Your task to perform on an android device: Show the shopping cart on newegg. Search for "apple airpods pro" on newegg, select the first entry, and add it to the cart. Image 0: 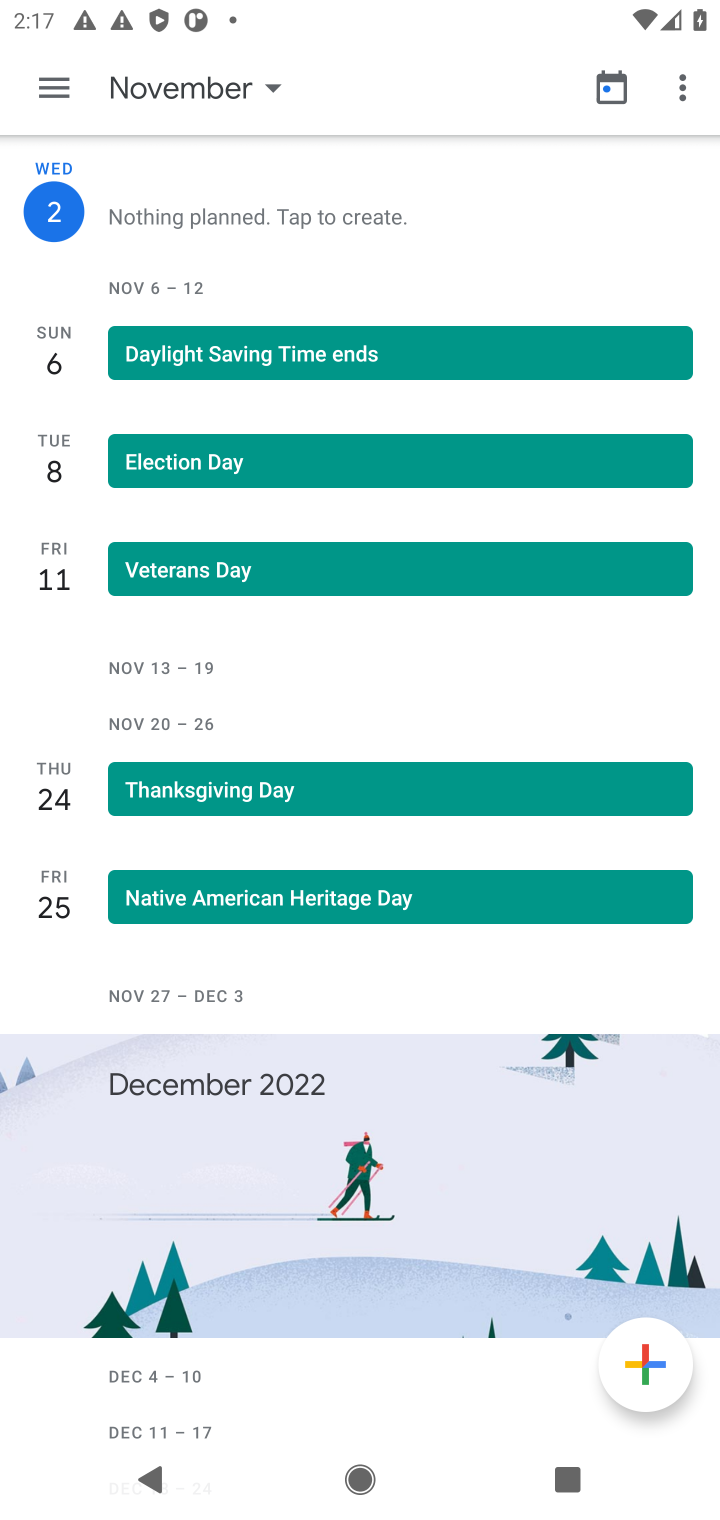
Step 0: press home button
Your task to perform on an android device: Show the shopping cart on newegg. Search for "apple airpods pro" on newegg, select the first entry, and add it to the cart. Image 1: 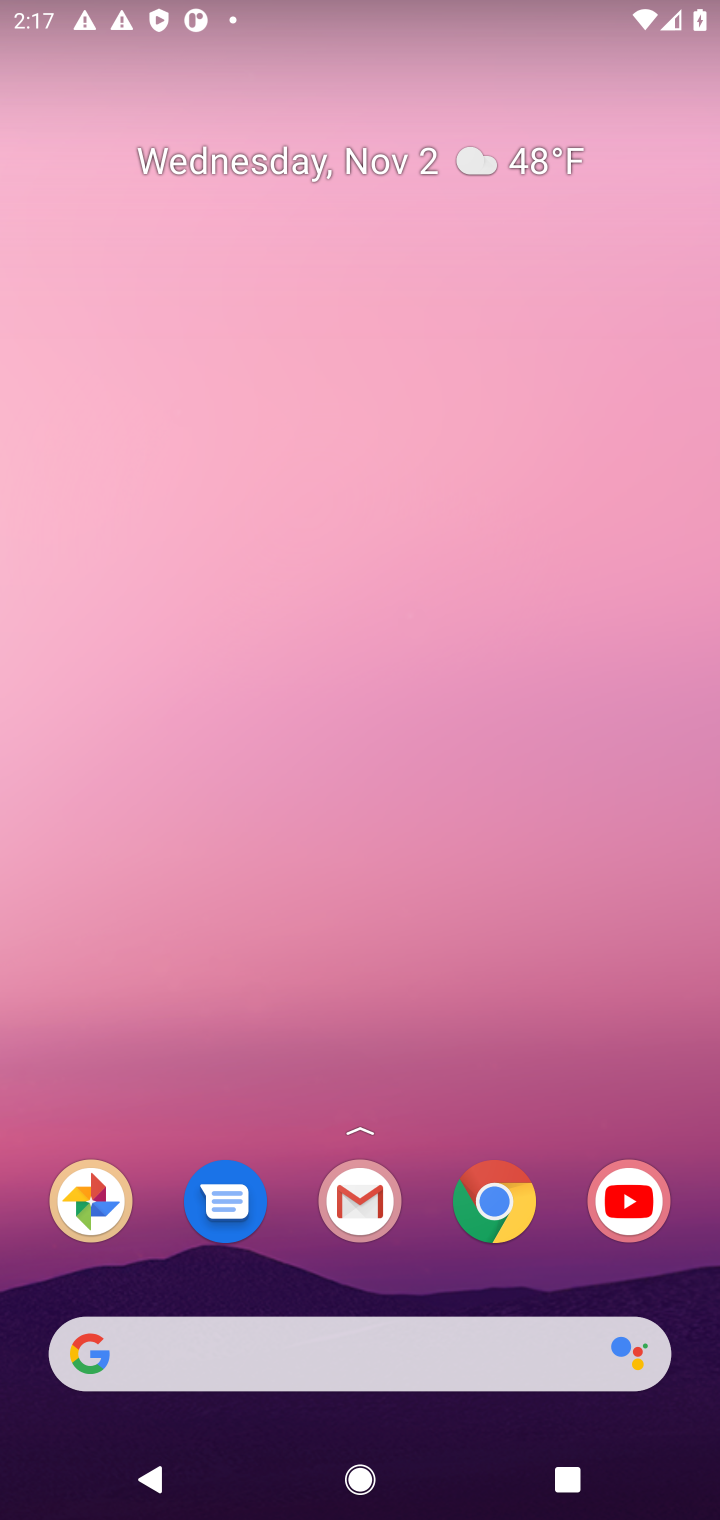
Step 1: click (511, 1216)
Your task to perform on an android device: Show the shopping cart on newegg. Search for "apple airpods pro" on newegg, select the first entry, and add it to the cart. Image 2: 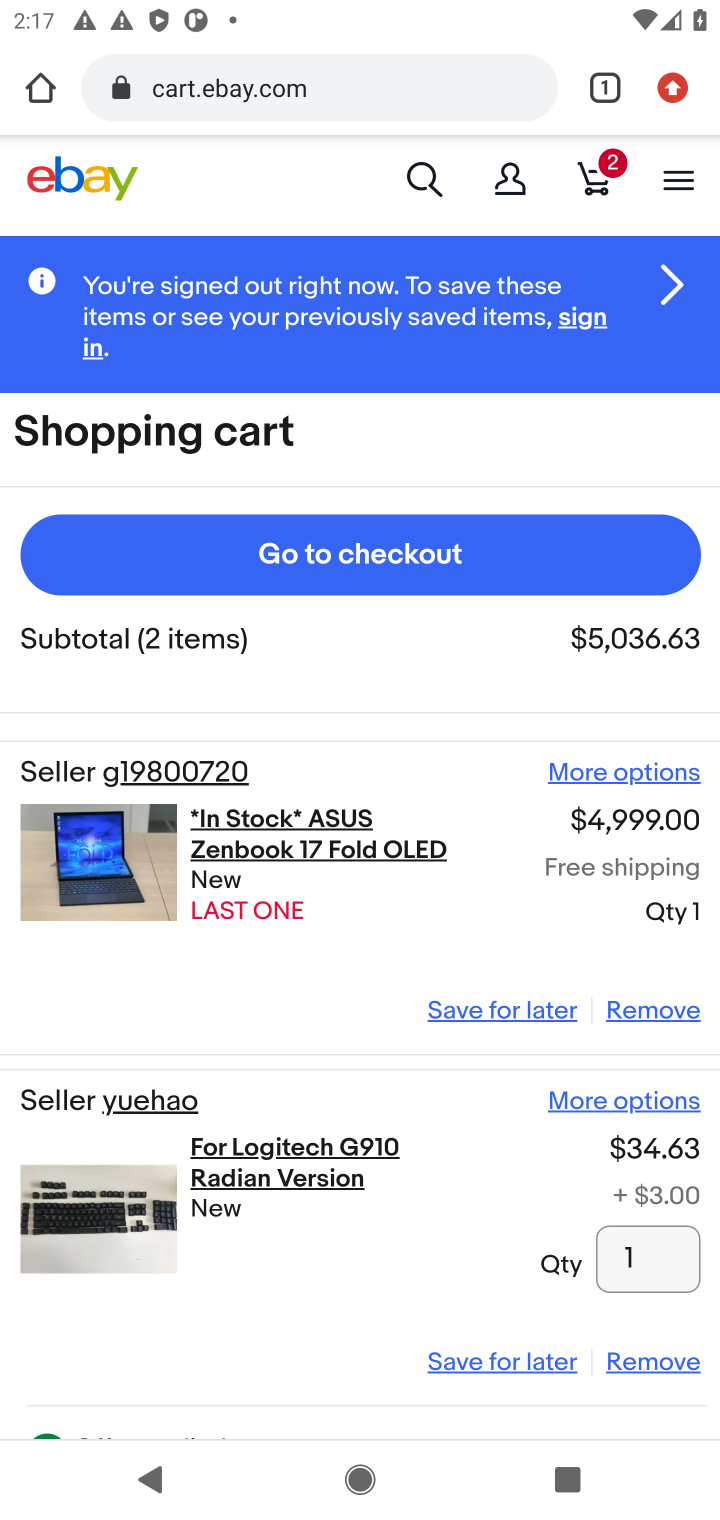
Step 2: click (496, 100)
Your task to perform on an android device: Show the shopping cart on newegg. Search for "apple airpods pro" on newegg, select the first entry, and add it to the cart. Image 3: 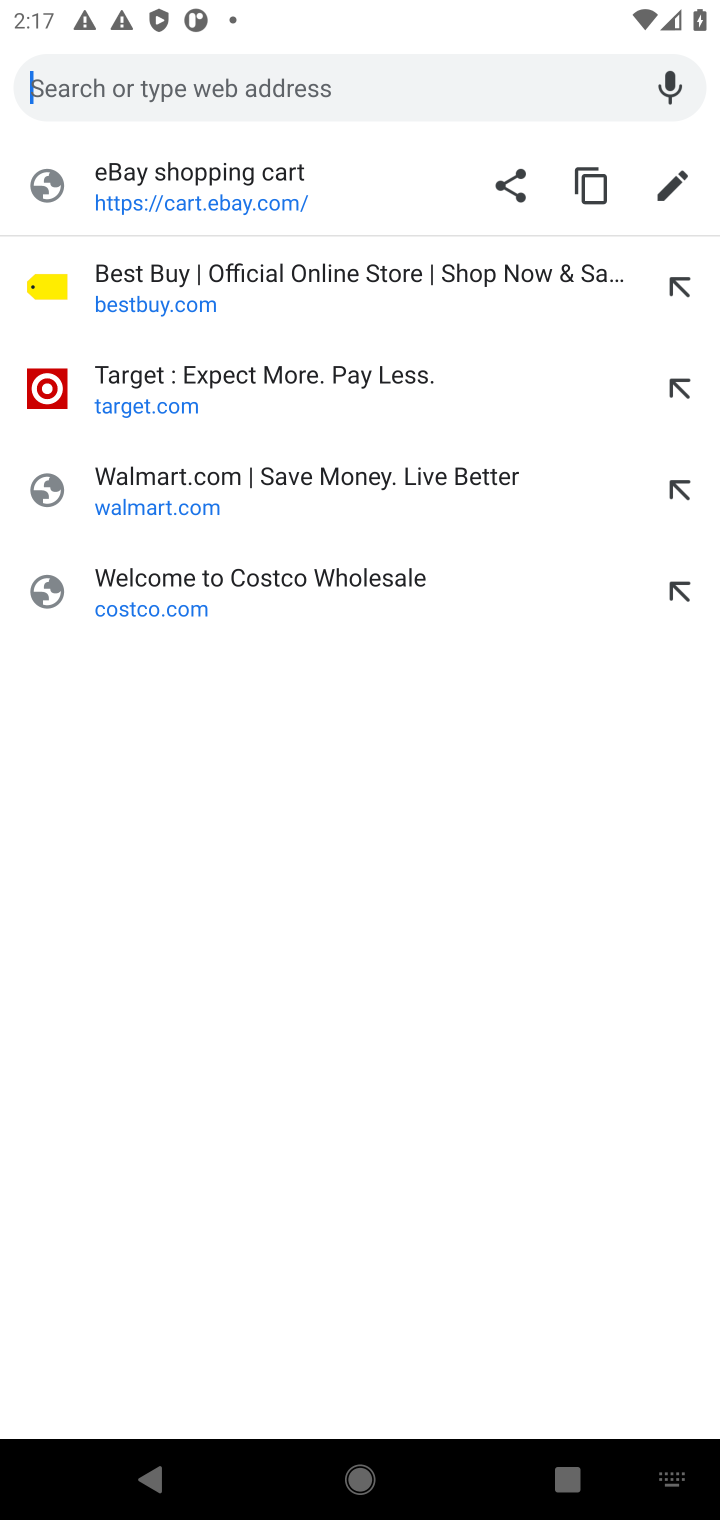
Step 3: type "newegg"
Your task to perform on an android device: Show the shopping cart on newegg. Search for "apple airpods pro" on newegg, select the first entry, and add it to the cart. Image 4: 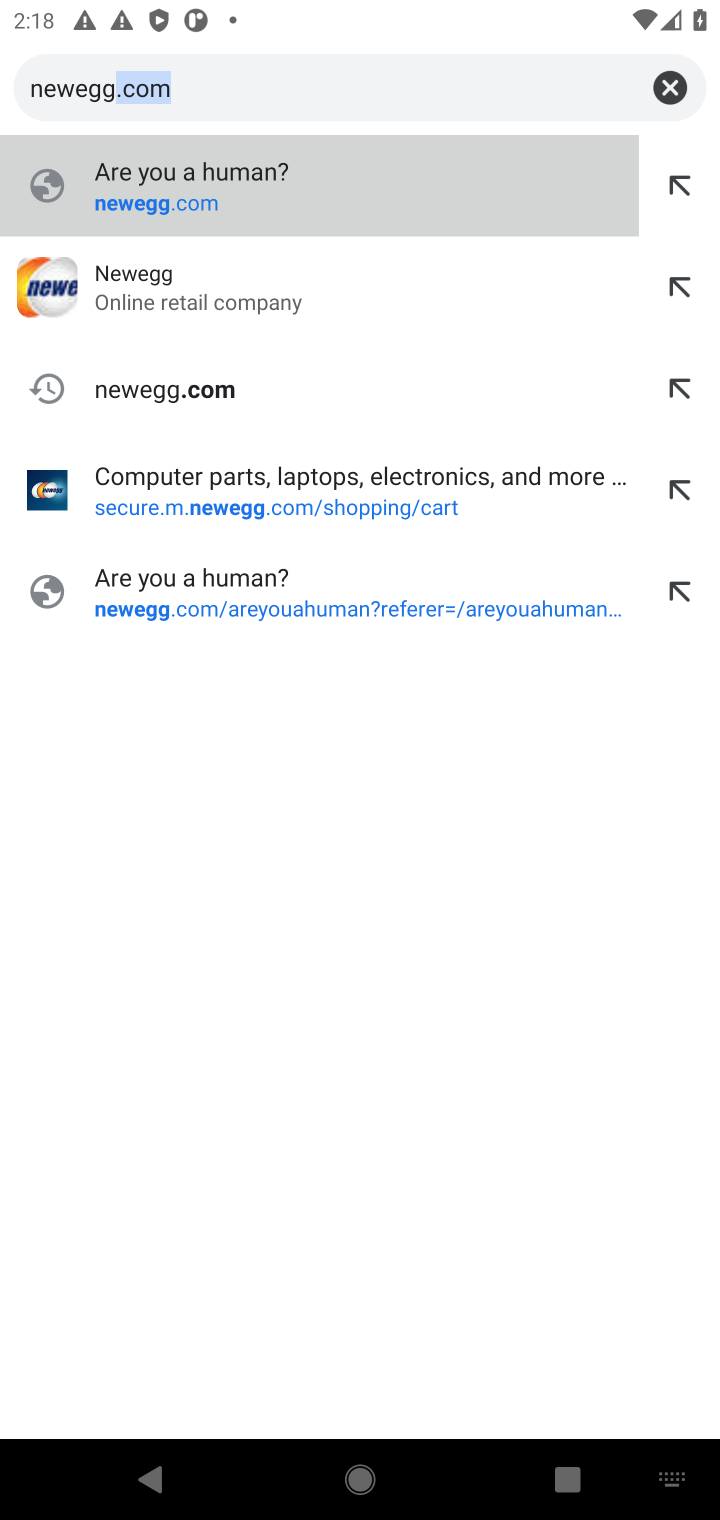
Step 4: click (275, 92)
Your task to perform on an android device: Show the shopping cart on newegg. Search for "apple airpods pro" on newegg, select the first entry, and add it to the cart. Image 5: 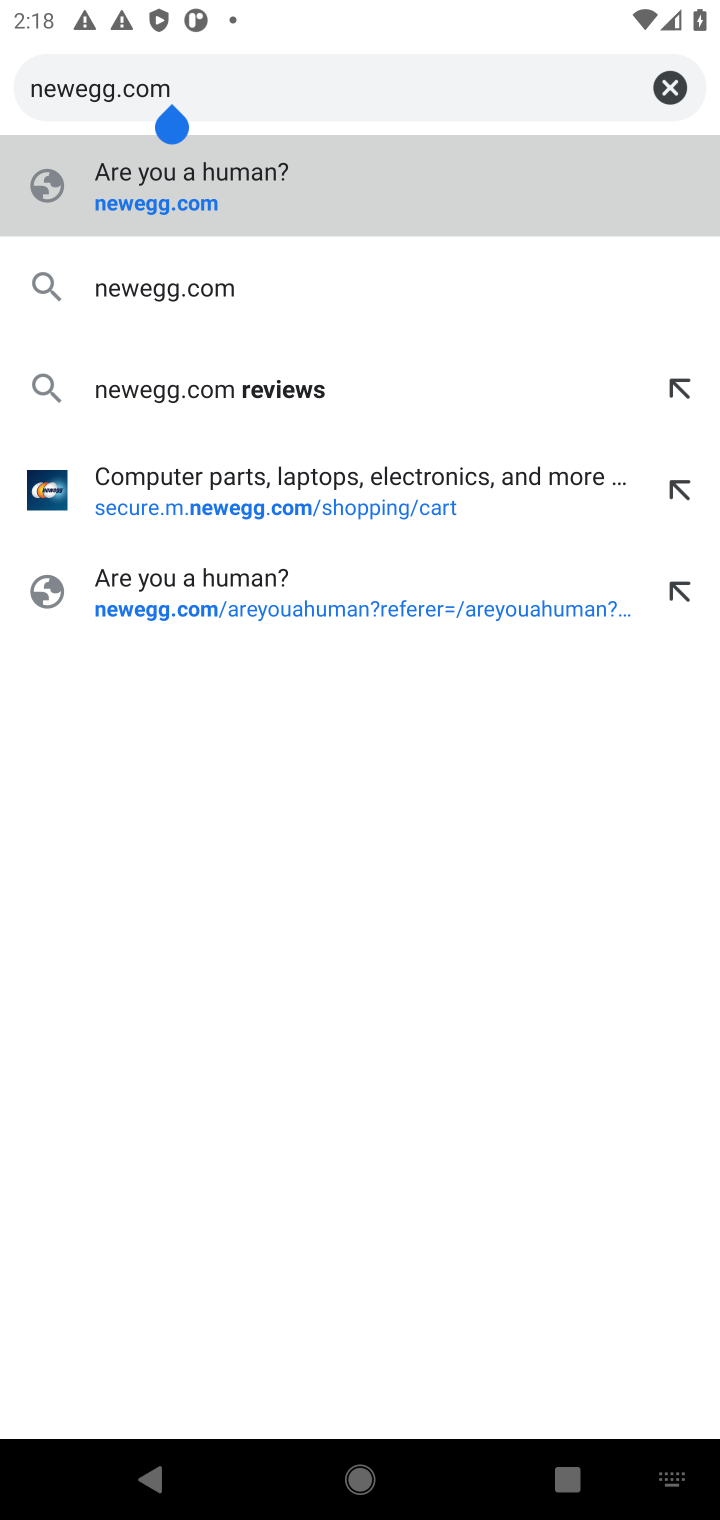
Step 5: click (175, 294)
Your task to perform on an android device: Show the shopping cart on newegg. Search for "apple airpods pro" on newegg, select the first entry, and add it to the cart. Image 6: 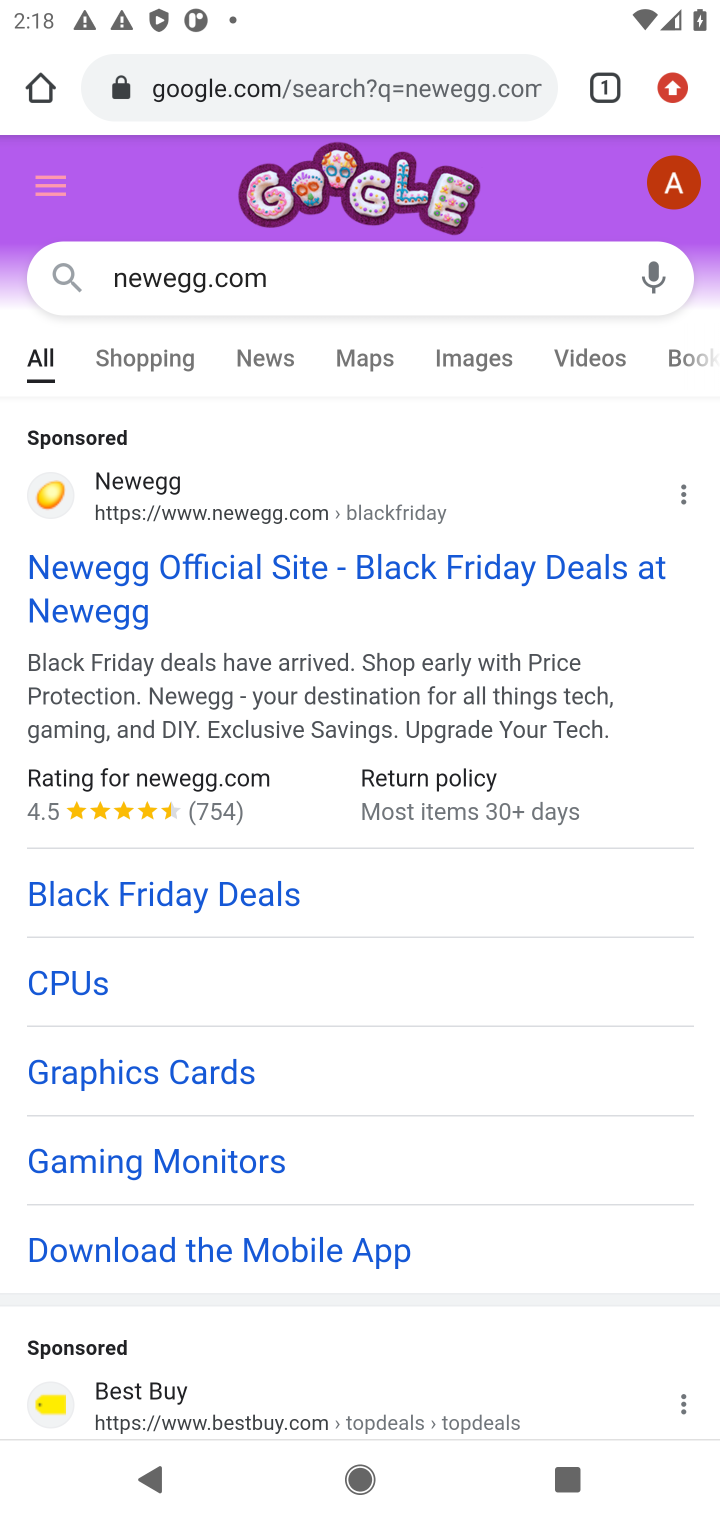
Step 6: click (194, 506)
Your task to perform on an android device: Show the shopping cart on newegg. Search for "apple airpods pro" on newegg, select the first entry, and add it to the cart. Image 7: 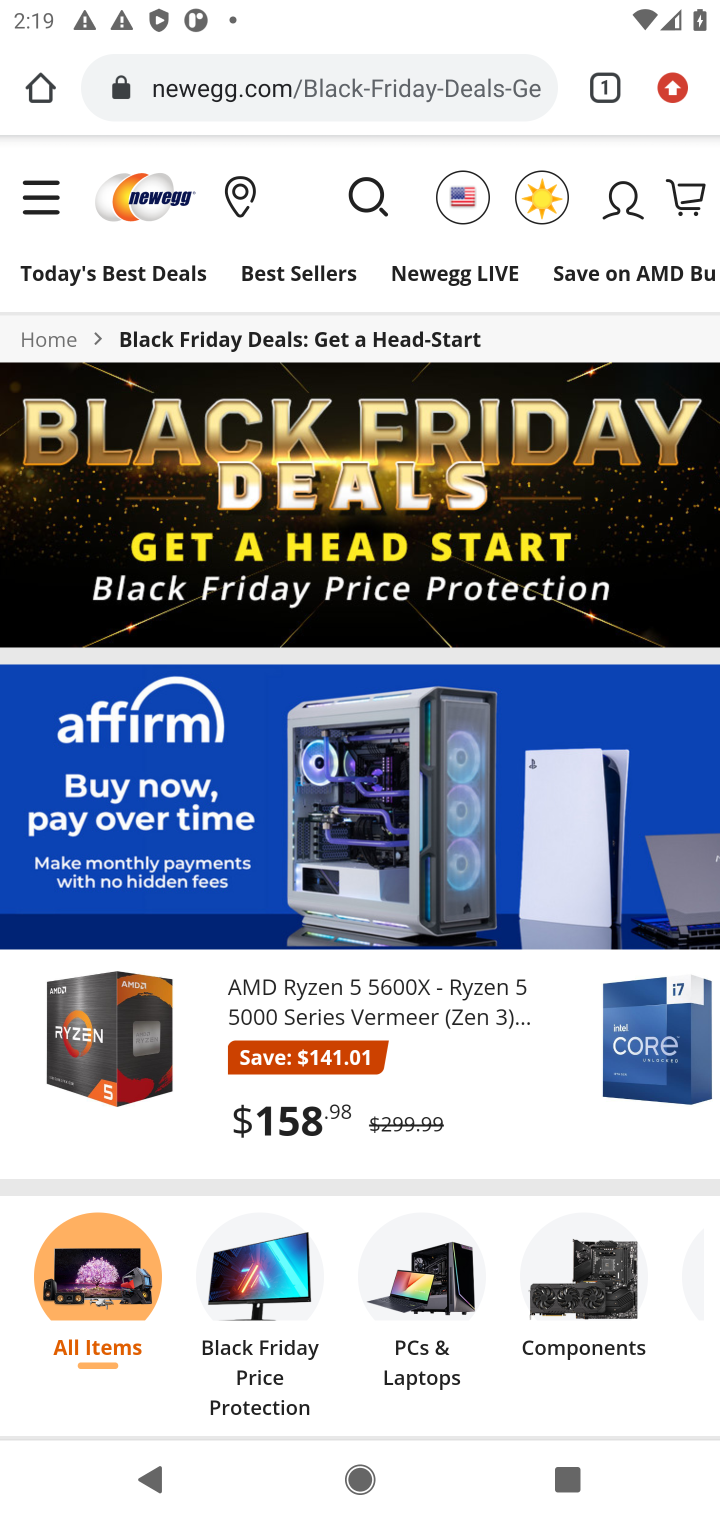
Step 7: click (677, 202)
Your task to perform on an android device: Show the shopping cart on newegg. Search for "apple airpods pro" on newegg, select the first entry, and add it to the cart. Image 8: 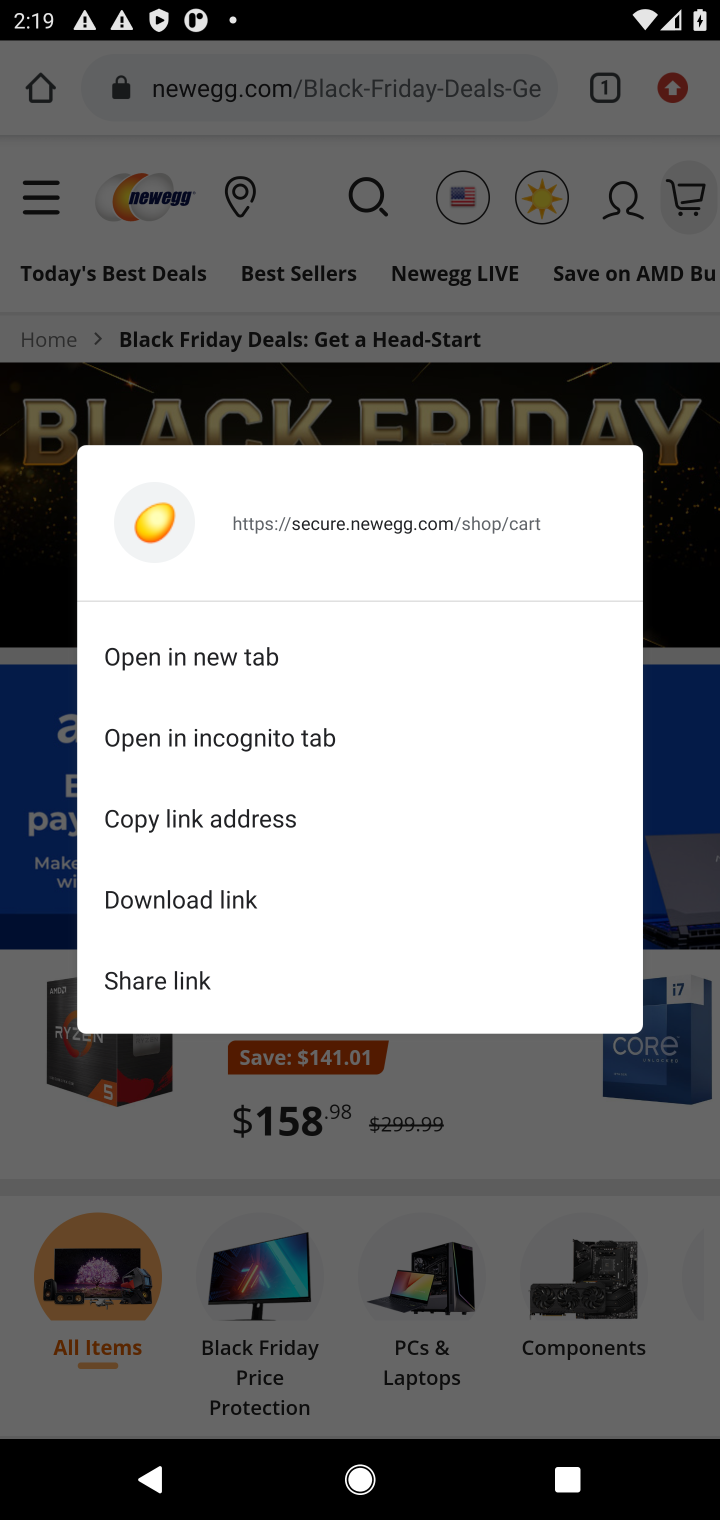
Step 8: click (677, 202)
Your task to perform on an android device: Show the shopping cart on newegg. Search for "apple airpods pro" on newegg, select the first entry, and add it to the cart. Image 9: 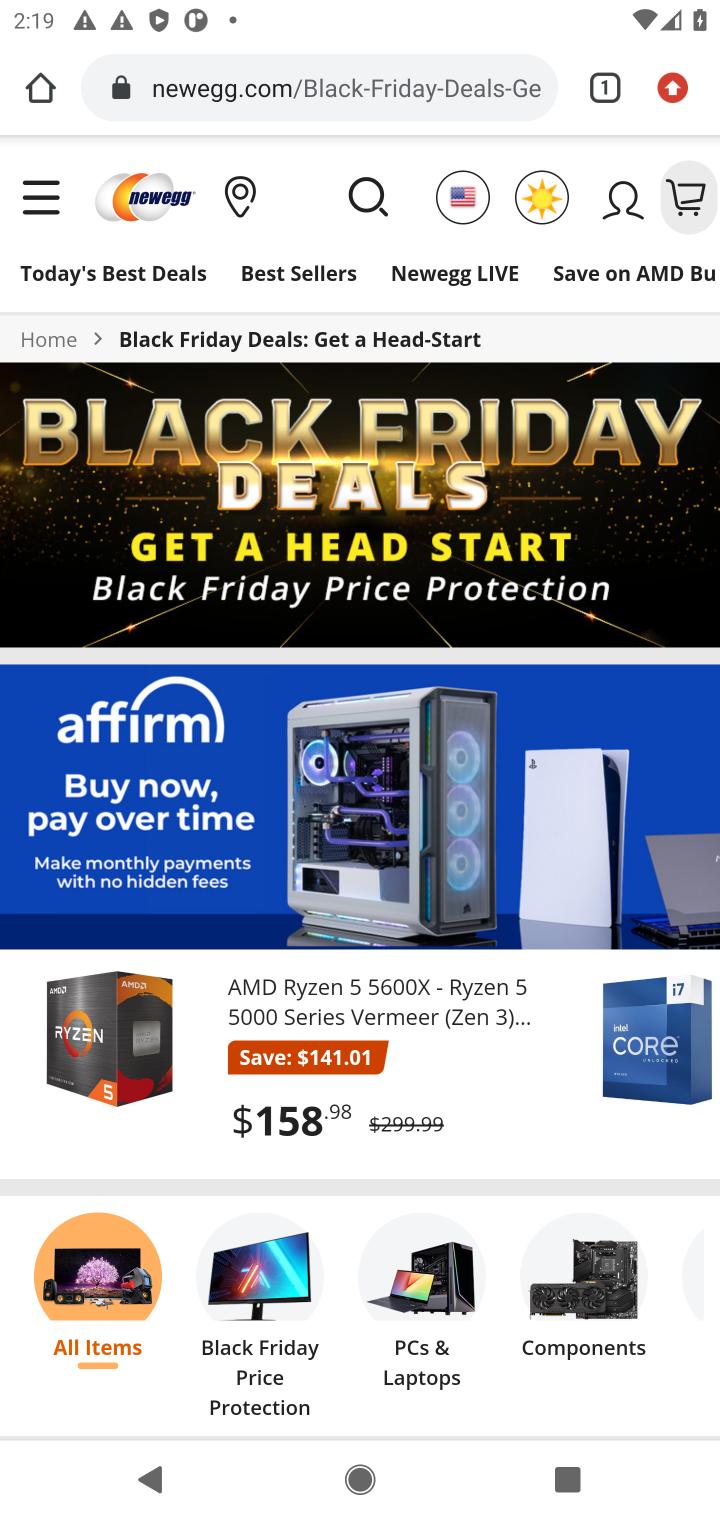
Step 9: click (677, 202)
Your task to perform on an android device: Show the shopping cart on newegg. Search for "apple airpods pro" on newegg, select the first entry, and add it to the cart. Image 10: 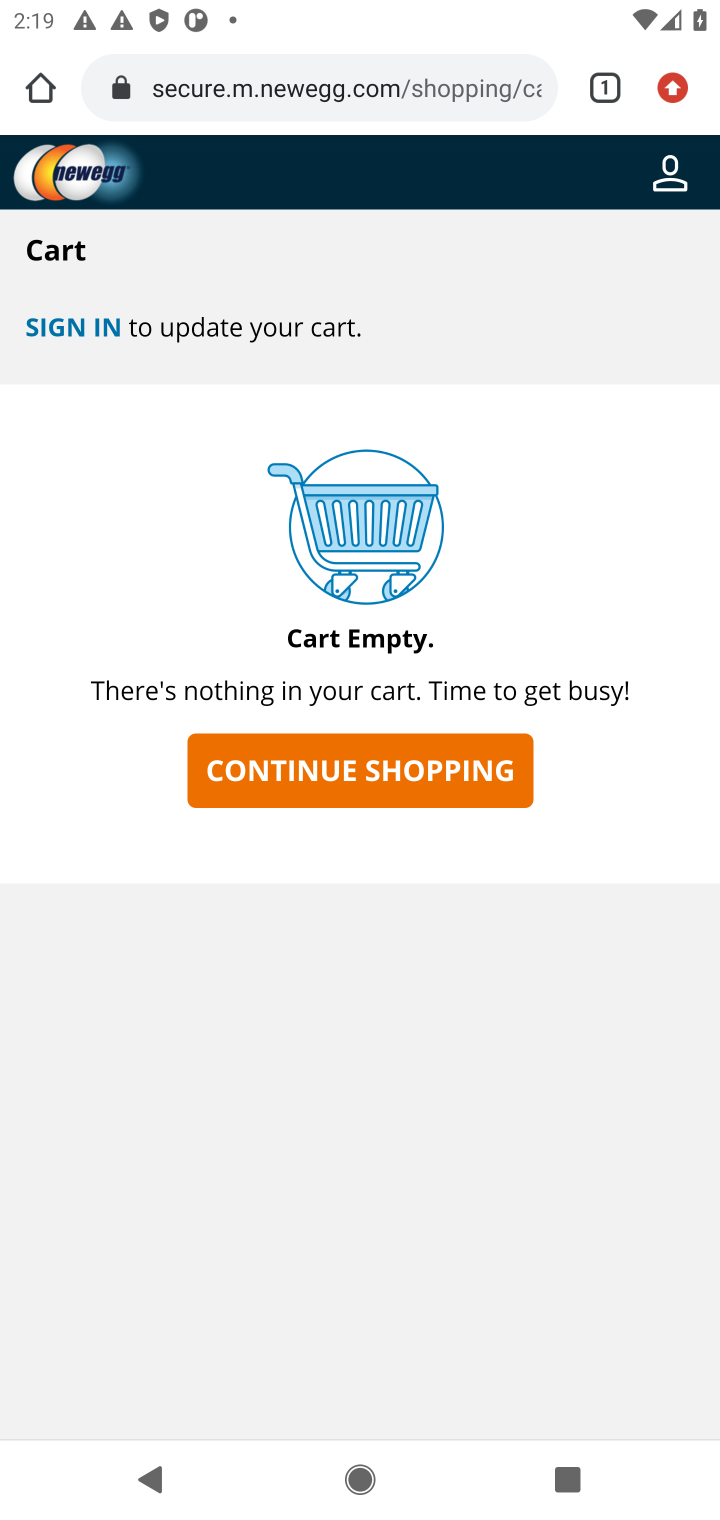
Step 10: press back button
Your task to perform on an android device: Show the shopping cart on newegg. Search for "apple airpods pro" on newegg, select the first entry, and add it to the cart. Image 11: 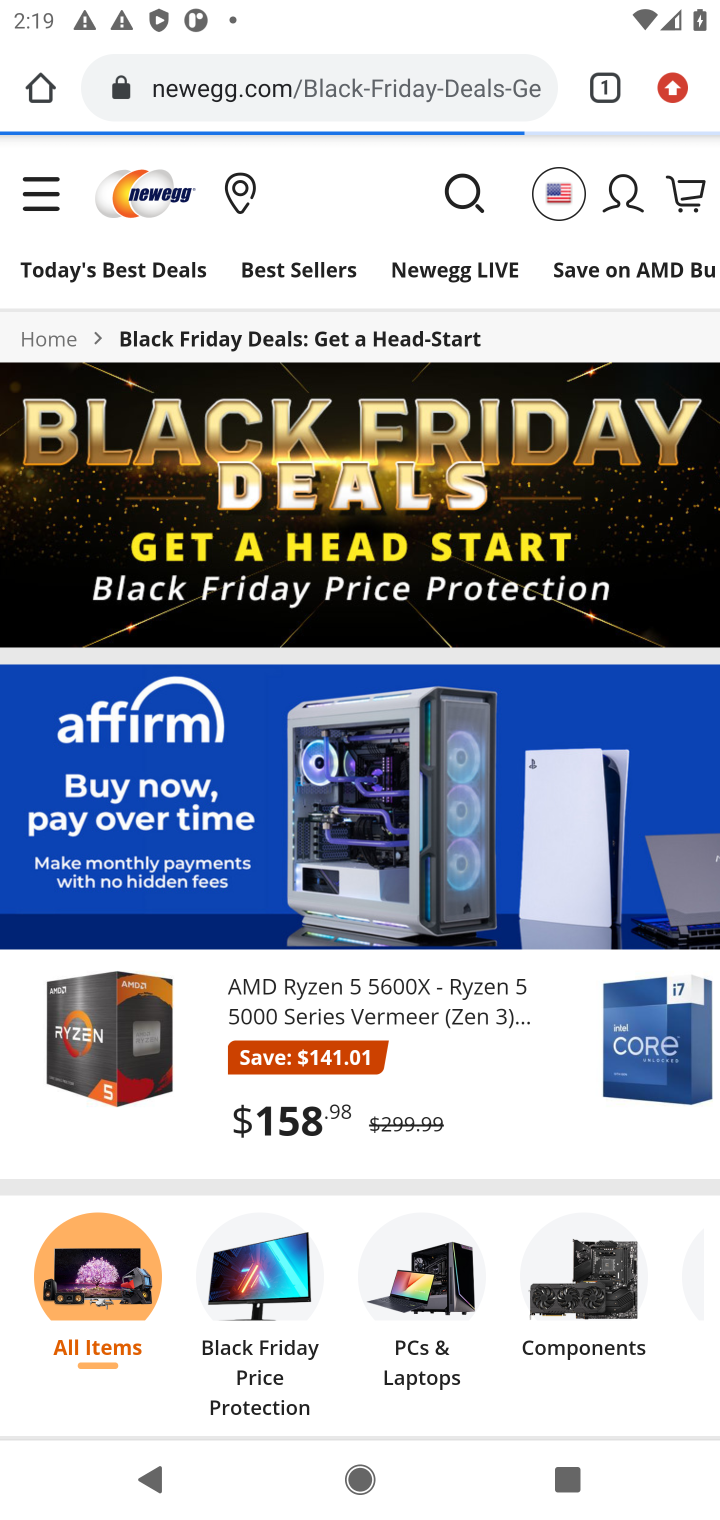
Step 11: click (449, 185)
Your task to perform on an android device: Show the shopping cart on newegg. Search for "apple airpods pro" on newegg, select the first entry, and add it to the cart. Image 12: 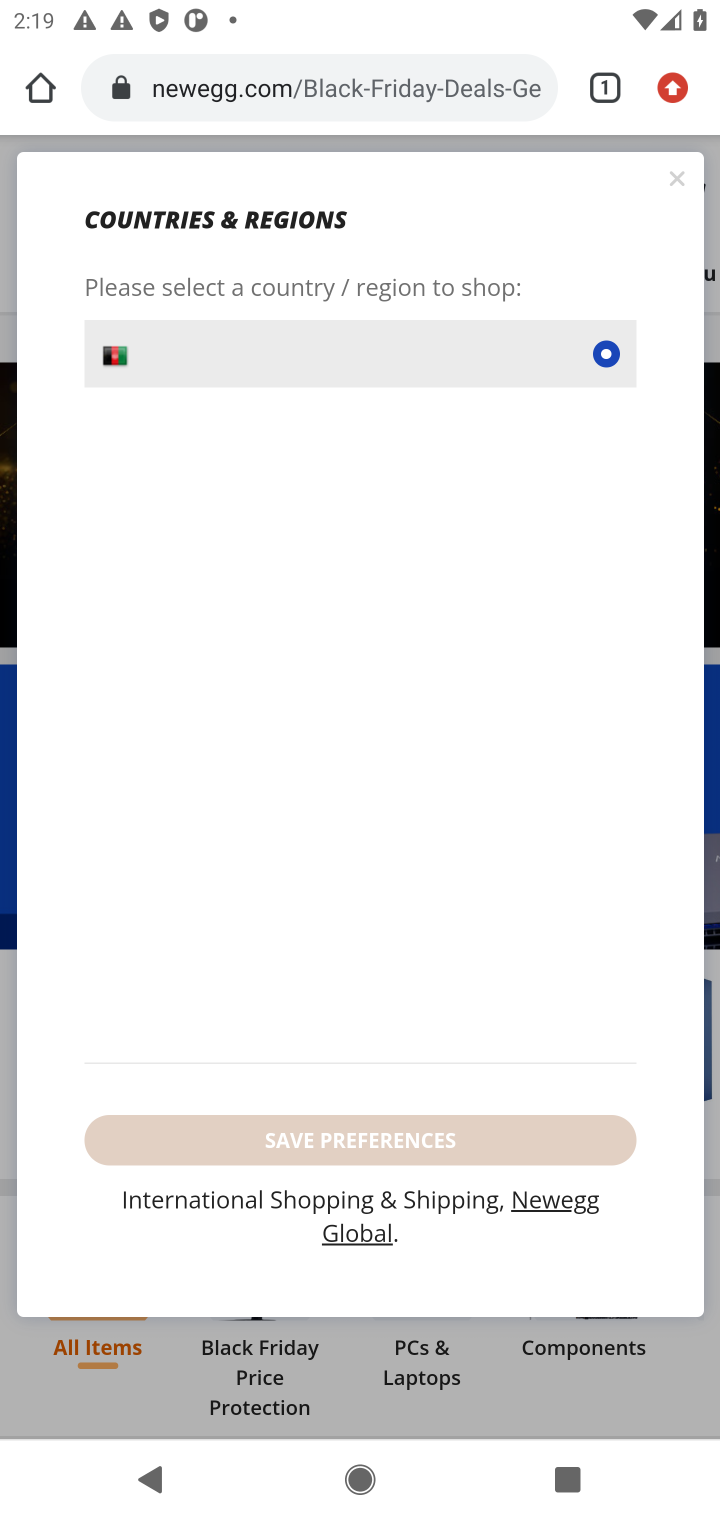
Step 12: click (671, 173)
Your task to perform on an android device: Show the shopping cart on newegg. Search for "apple airpods pro" on newegg, select the first entry, and add it to the cart. Image 13: 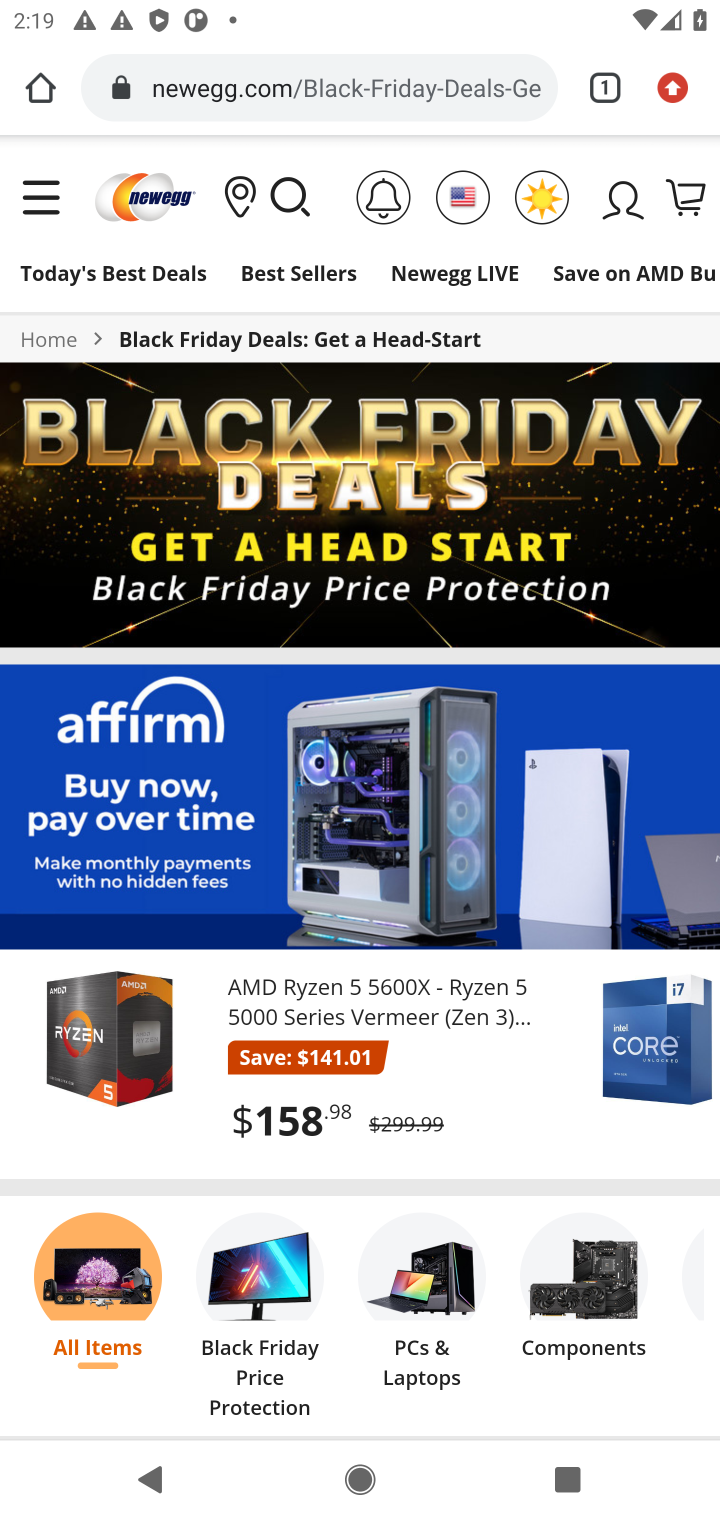
Step 13: click (296, 190)
Your task to perform on an android device: Show the shopping cart on newegg. Search for "apple airpods pro" on newegg, select the first entry, and add it to the cart. Image 14: 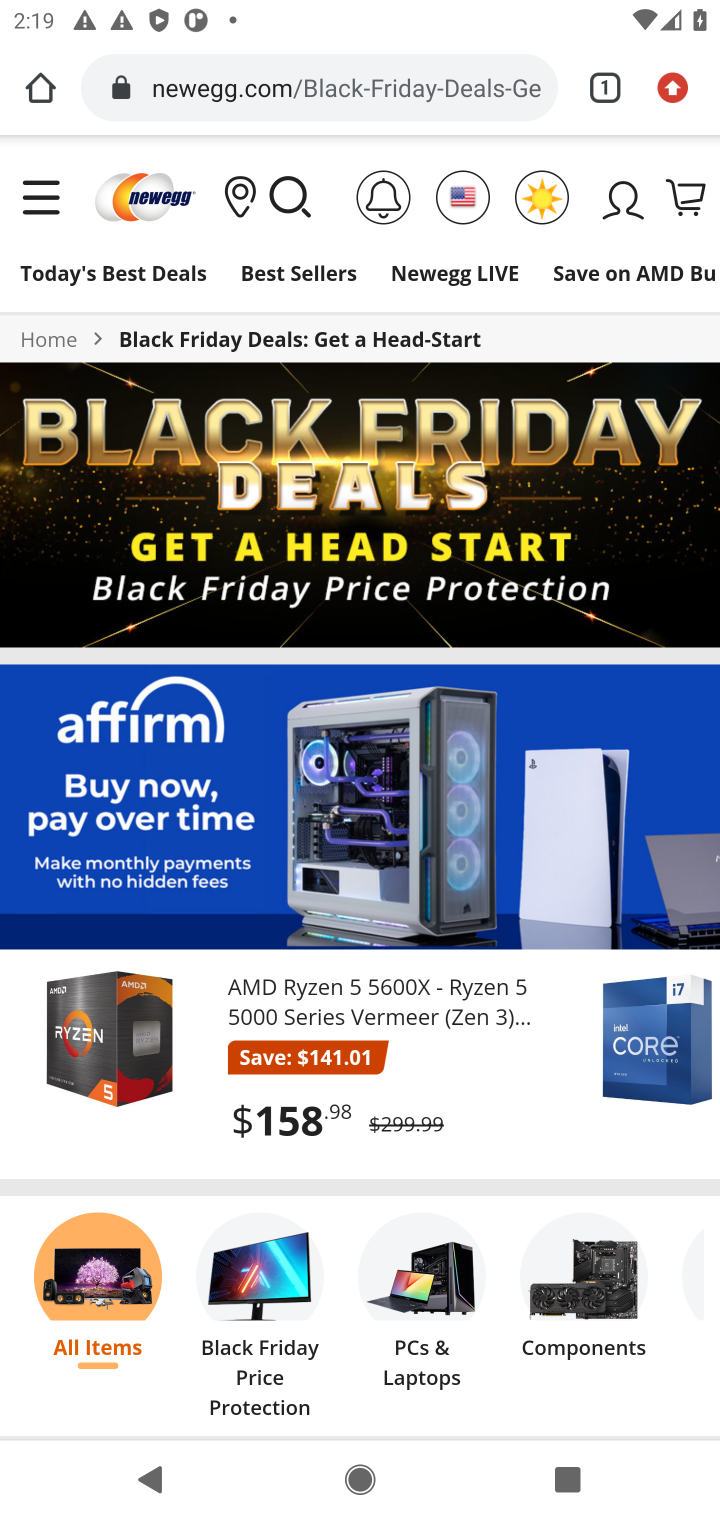
Step 14: click (296, 190)
Your task to perform on an android device: Show the shopping cart on newegg. Search for "apple airpods pro" on newegg, select the first entry, and add it to the cart. Image 15: 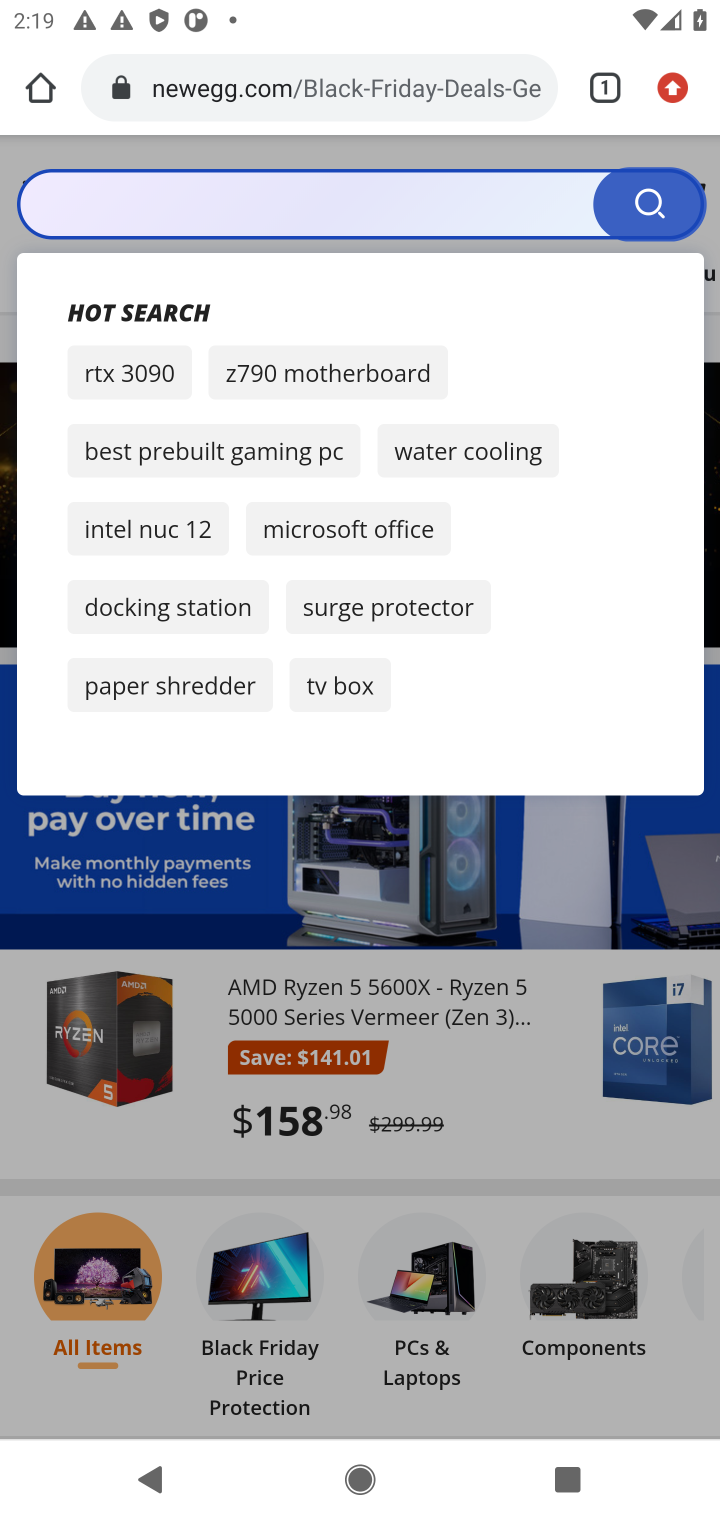
Step 15: click (296, 190)
Your task to perform on an android device: Show the shopping cart on newegg. Search for "apple airpods pro" on newegg, select the first entry, and add it to the cart. Image 16: 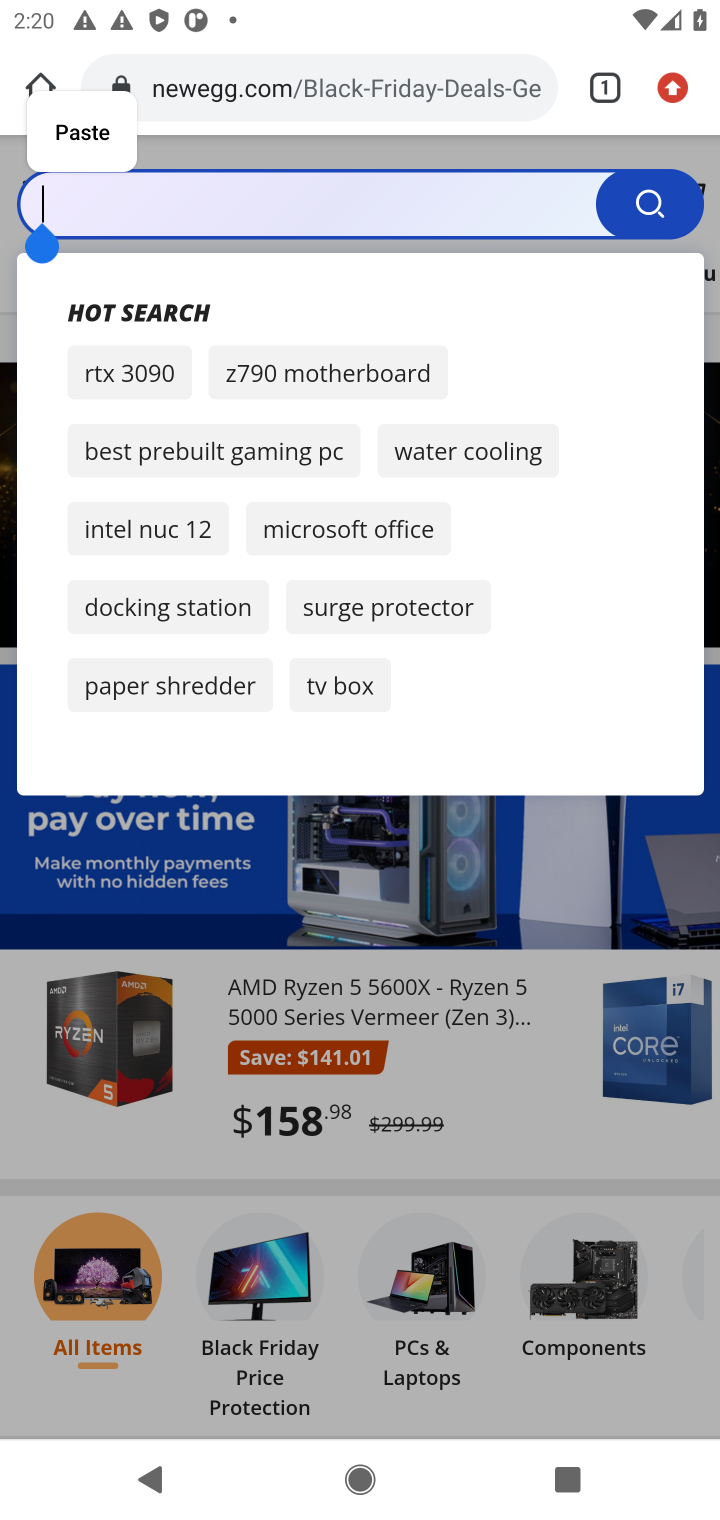
Step 16: type "apple airpods pro"
Your task to perform on an android device: Show the shopping cart on newegg. Search for "apple airpods pro" on newegg, select the first entry, and add it to the cart. Image 17: 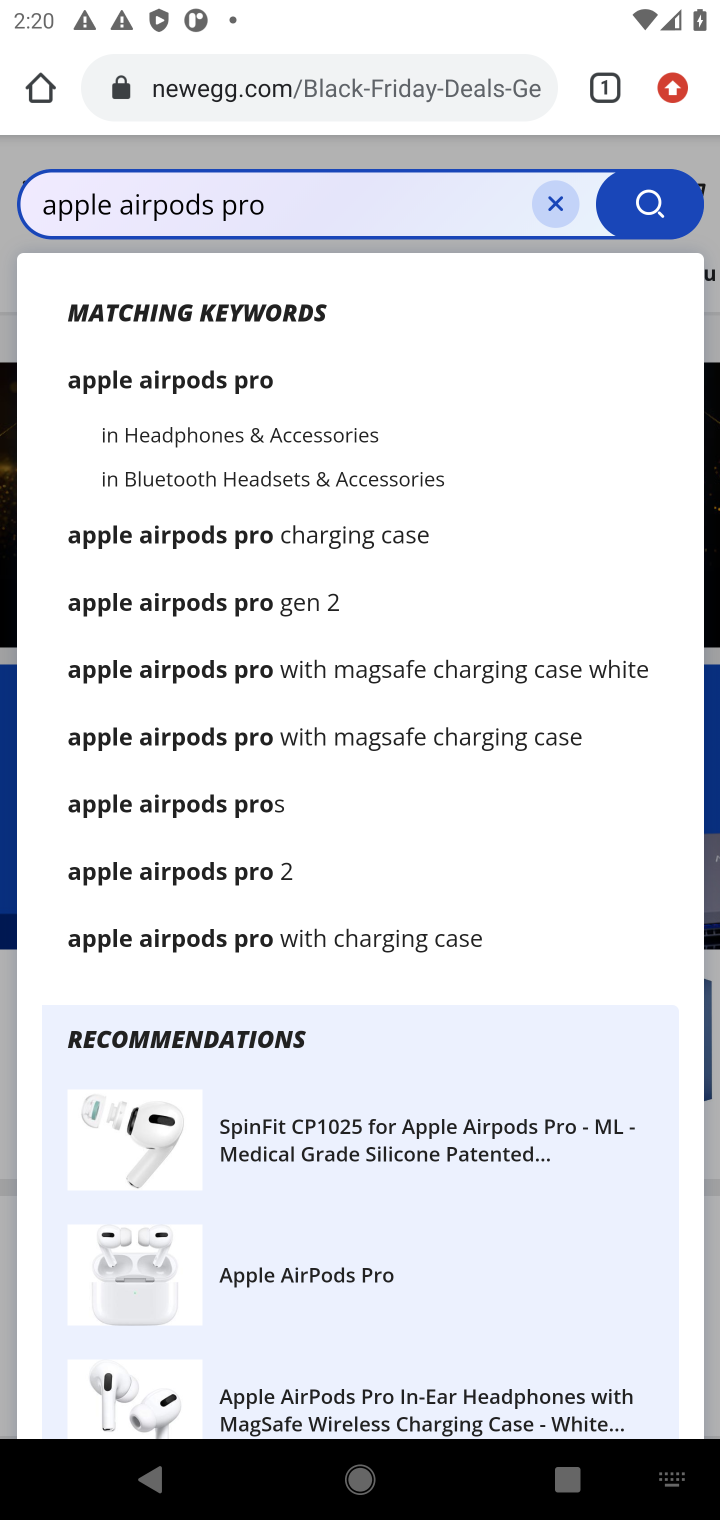
Step 17: click (231, 799)
Your task to perform on an android device: Show the shopping cart on newegg. Search for "apple airpods pro" on newegg, select the first entry, and add it to the cart. Image 18: 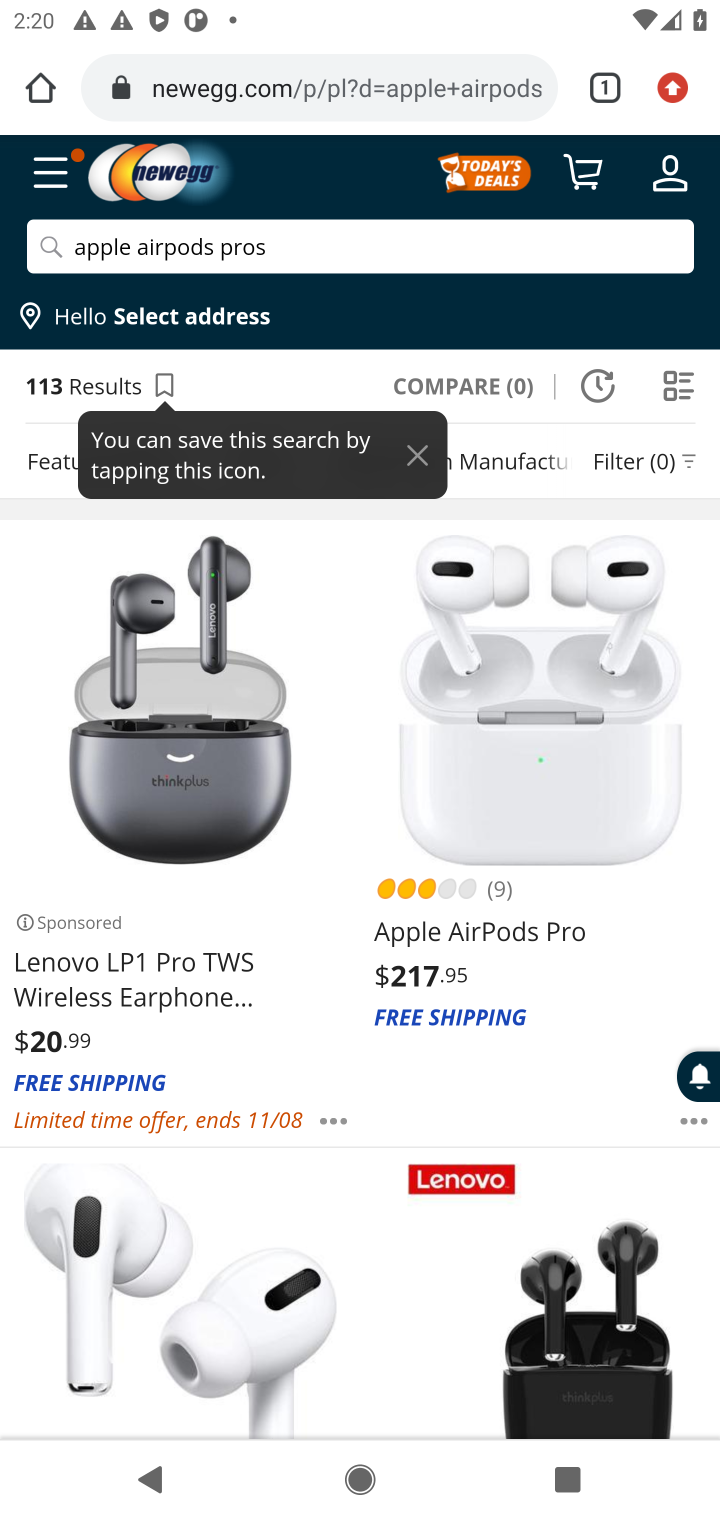
Step 18: click (512, 734)
Your task to perform on an android device: Show the shopping cart on newegg. Search for "apple airpods pro" on newegg, select the first entry, and add it to the cart. Image 19: 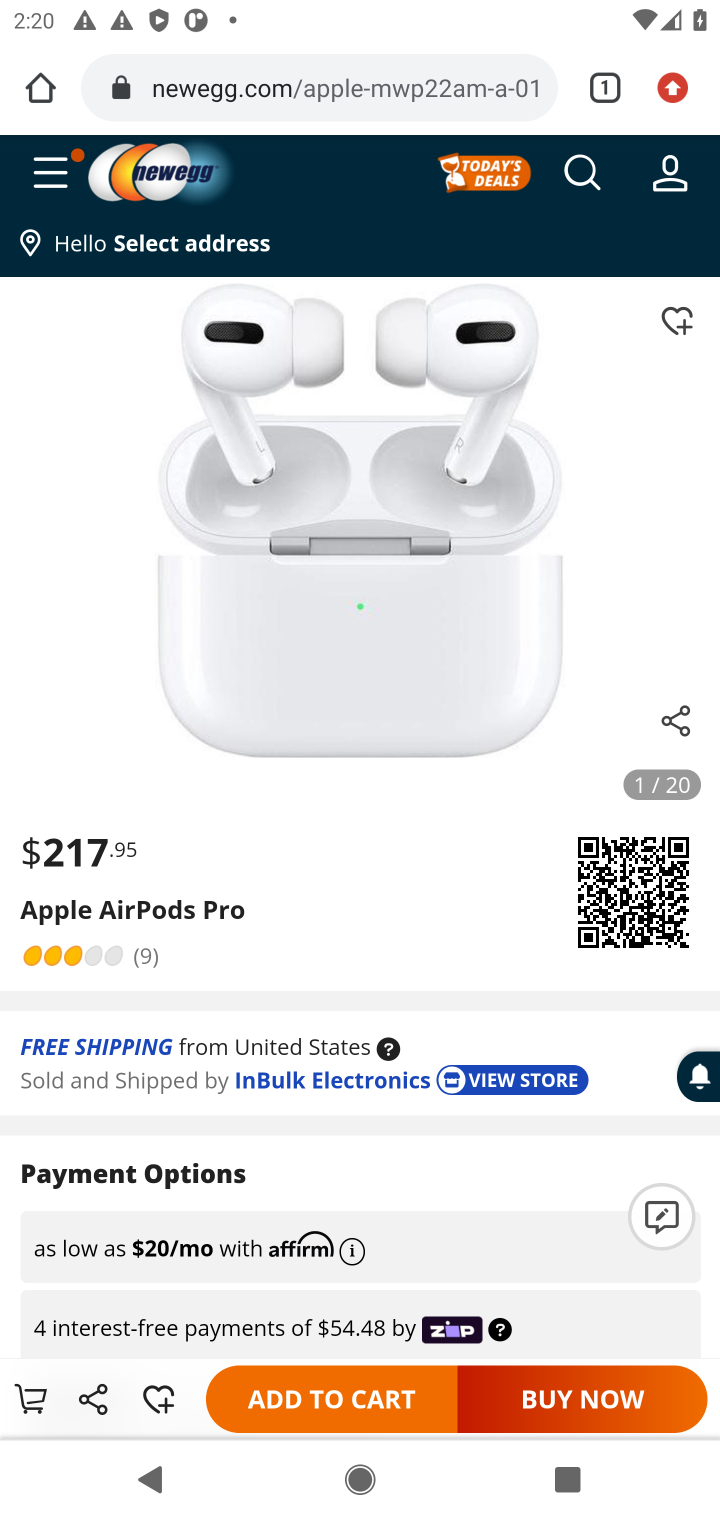
Step 19: click (338, 1392)
Your task to perform on an android device: Show the shopping cart on newegg. Search for "apple airpods pro" on newegg, select the first entry, and add it to the cart. Image 20: 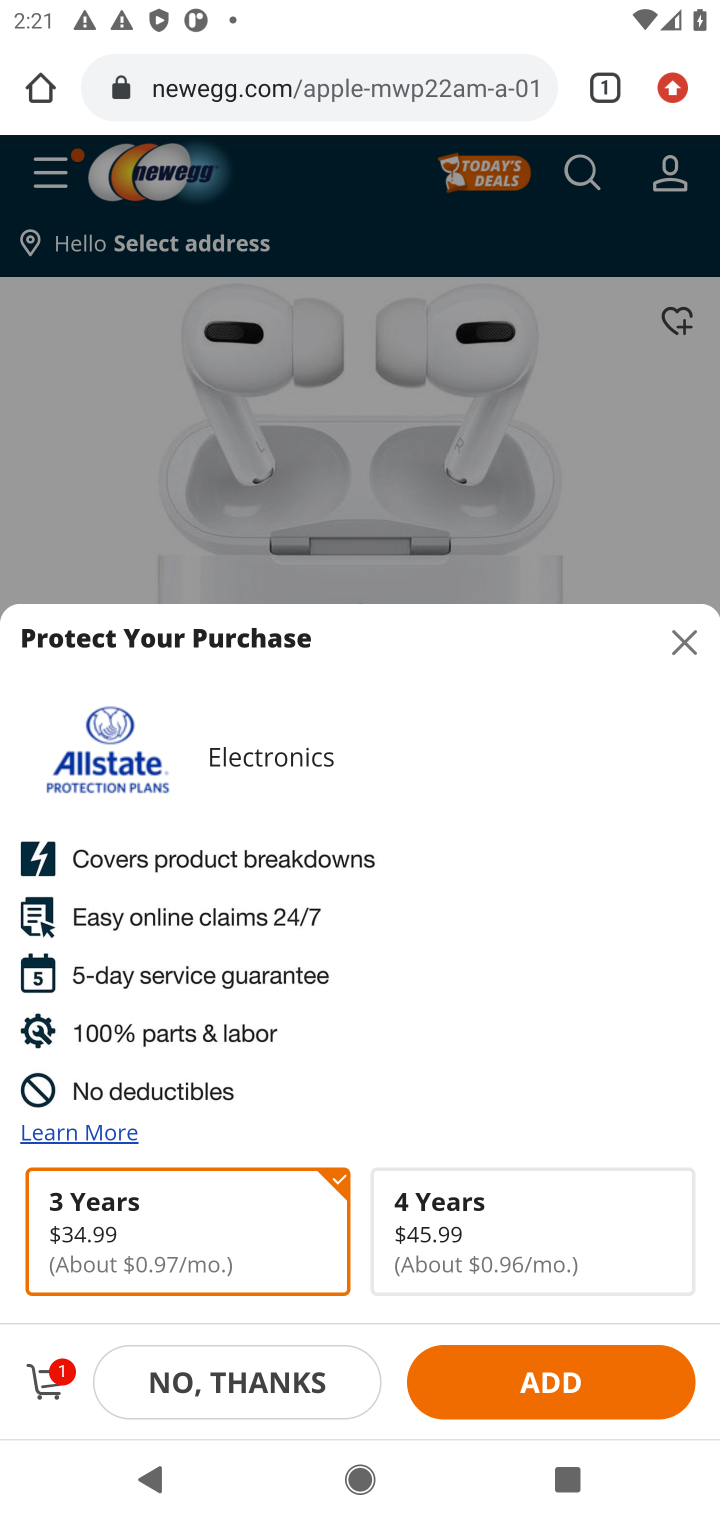
Step 20: click (683, 641)
Your task to perform on an android device: Show the shopping cart on newegg. Search for "apple airpods pro" on newegg, select the first entry, and add it to the cart. Image 21: 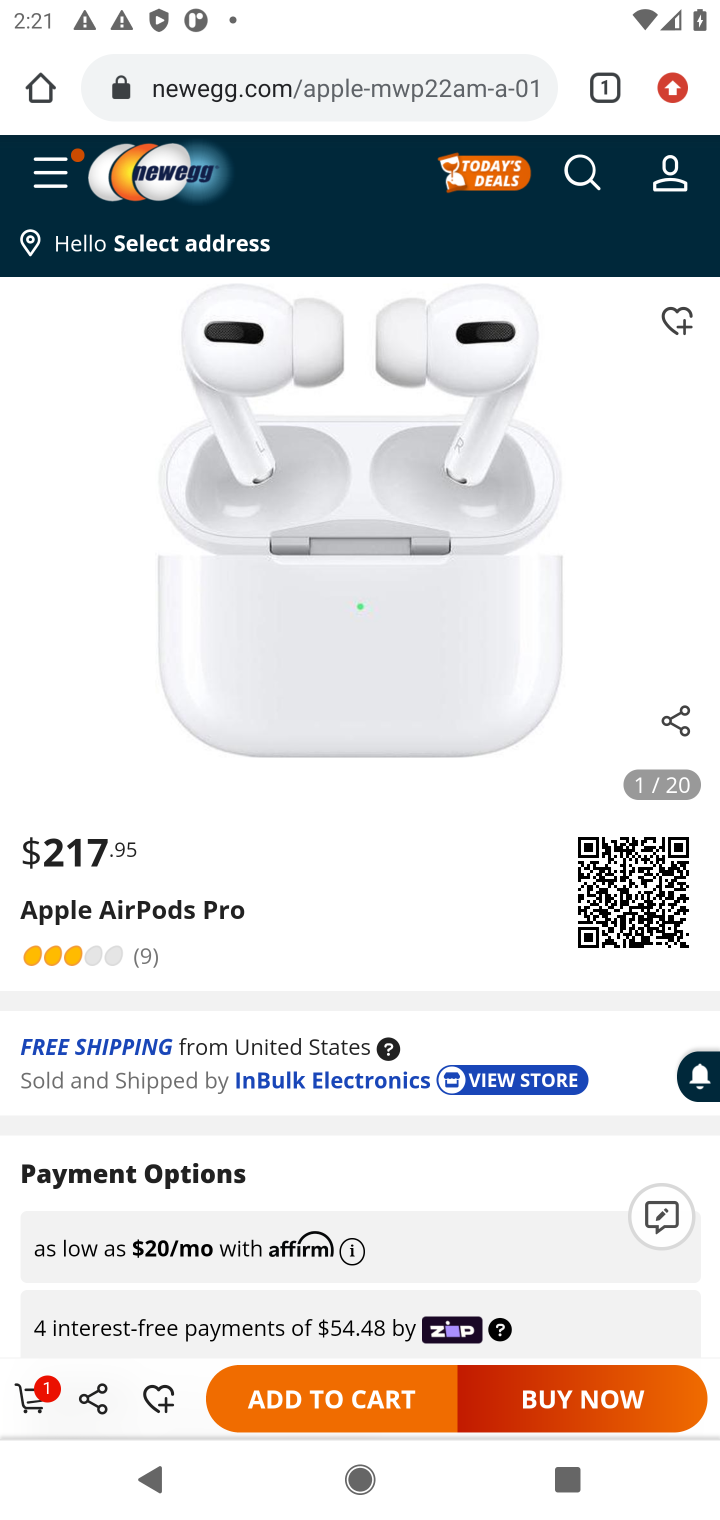
Step 21: task complete